Your task to perform on an android device: change timer sound Image 0: 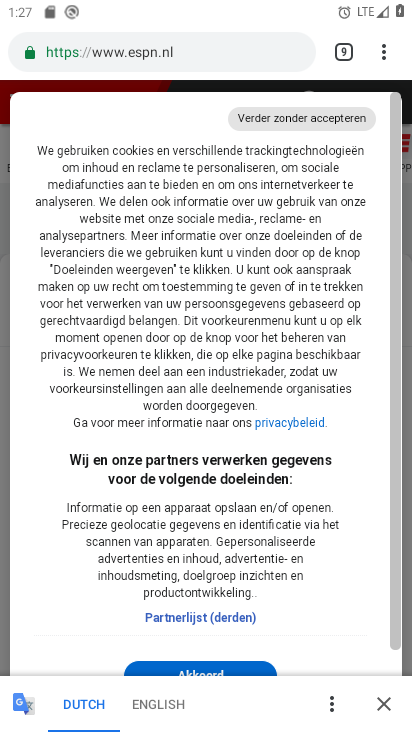
Step 0: press home button
Your task to perform on an android device: change timer sound Image 1: 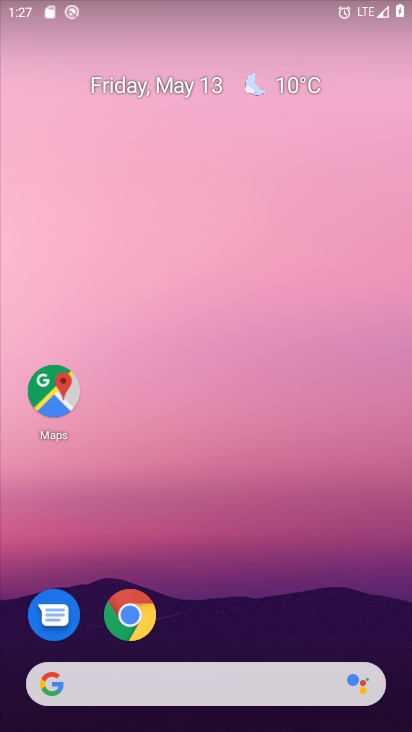
Step 1: drag from (220, 539) to (260, 21)
Your task to perform on an android device: change timer sound Image 2: 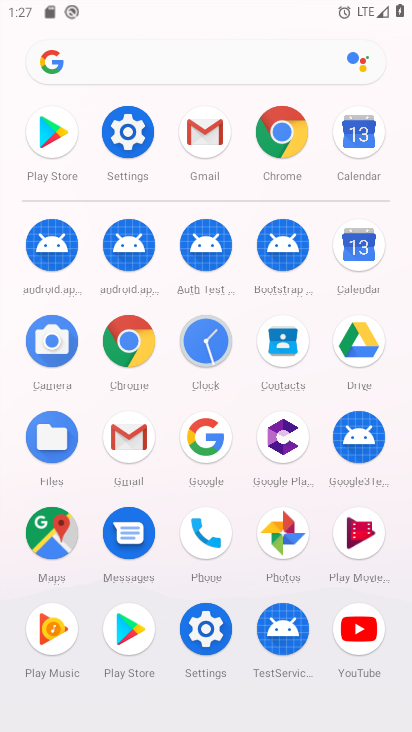
Step 2: click (132, 131)
Your task to perform on an android device: change timer sound Image 3: 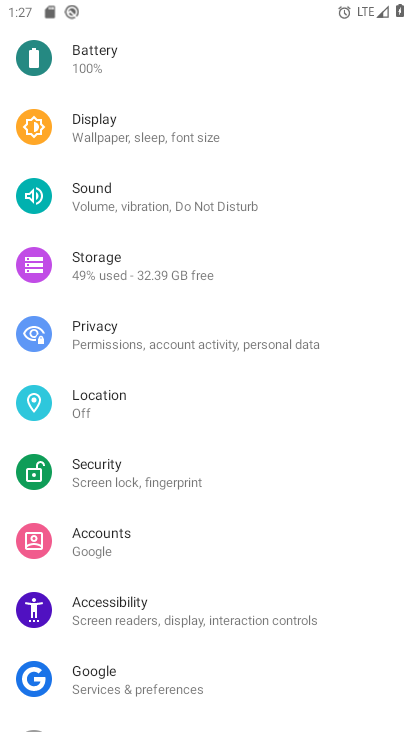
Step 3: press back button
Your task to perform on an android device: change timer sound Image 4: 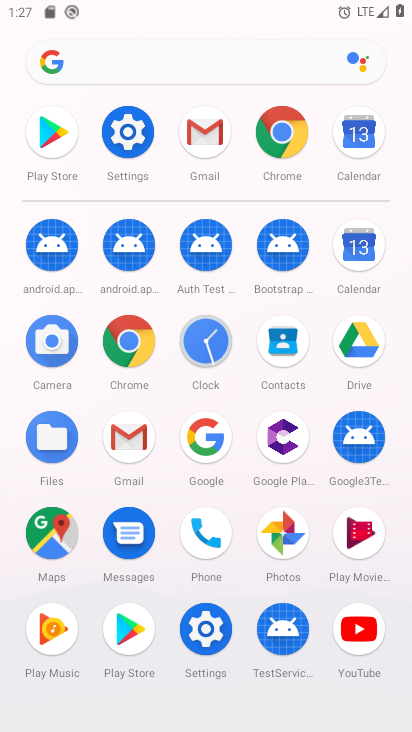
Step 4: click (201, 342)
Your task to perform on an android device: change timer sound Image 5: 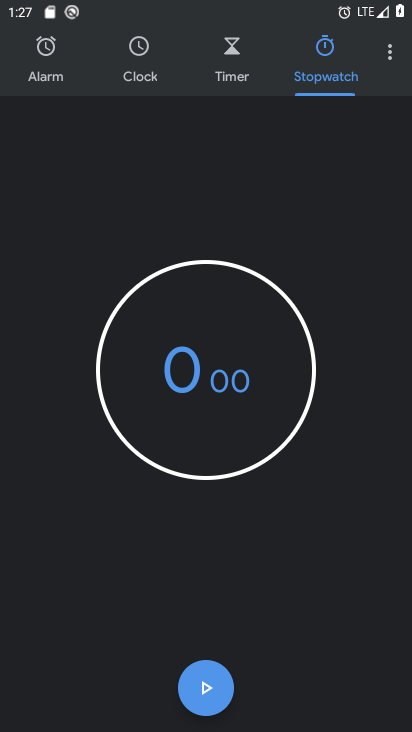
Step 5: click (390, 50)
Your task to perform on an android device: change timer sound Image 6: 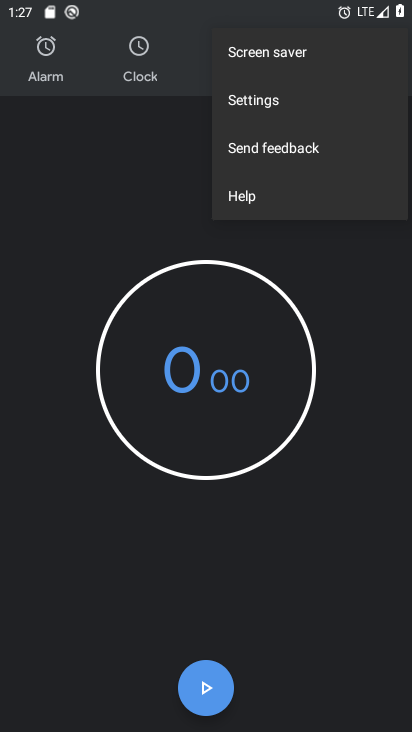
Step 6: click (311, 102)
Your task to perform on an android device: change timer sound Image 7: 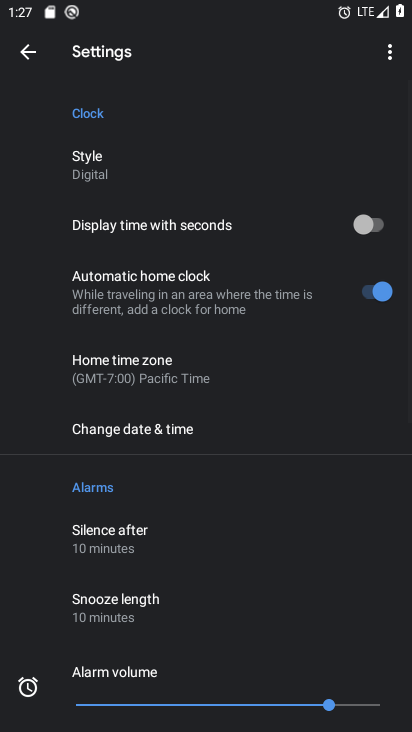
Step 7: drag from (226, 549) to (225, 124)
Your task to perform on an android device: change timer sound Image 8: 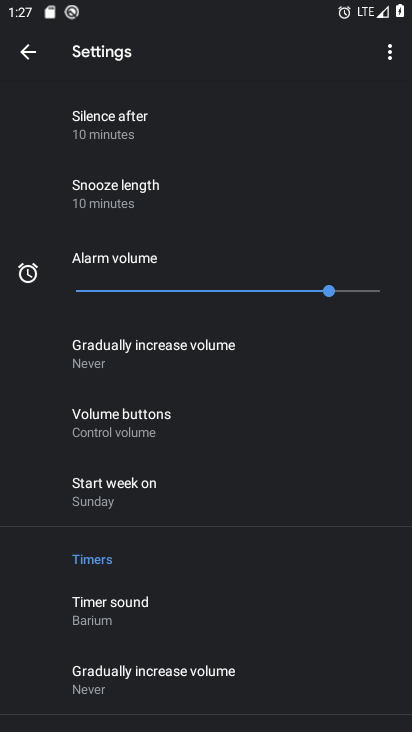
Step 8: click (122, 600)
Your task to perform on an android device: change timer sound Image 9: 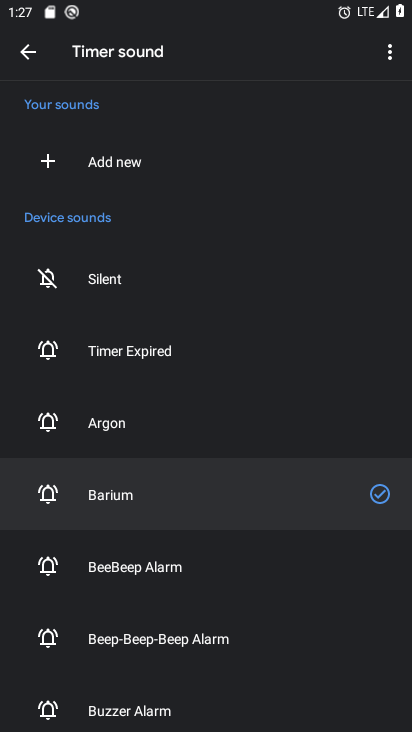
Step 9: click (115, 430)
Your task to perform on an android device: change timer sound Image 10: 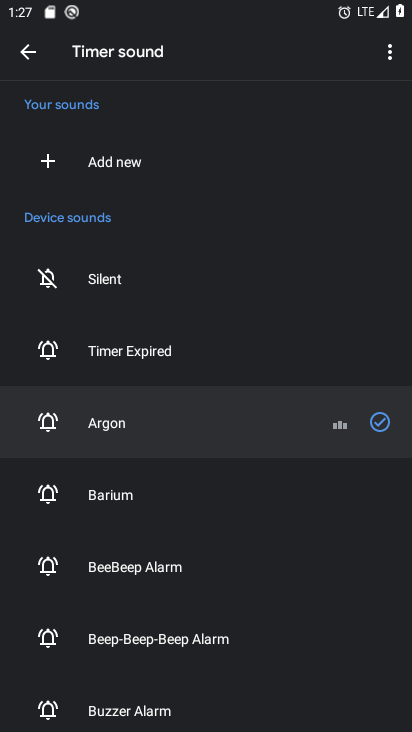
Step 10: task complete